Your task to perform on an android device: check data usage Image 0: 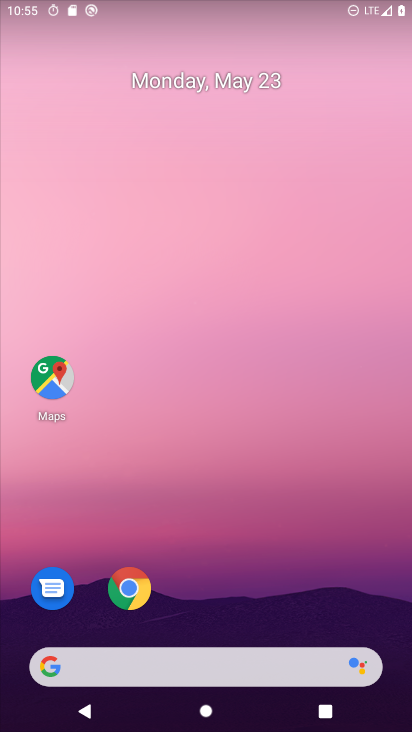
Step 0: drag from (400, 698) to (349, 331)
Your task to perform on an android device: check data usage Image 1: 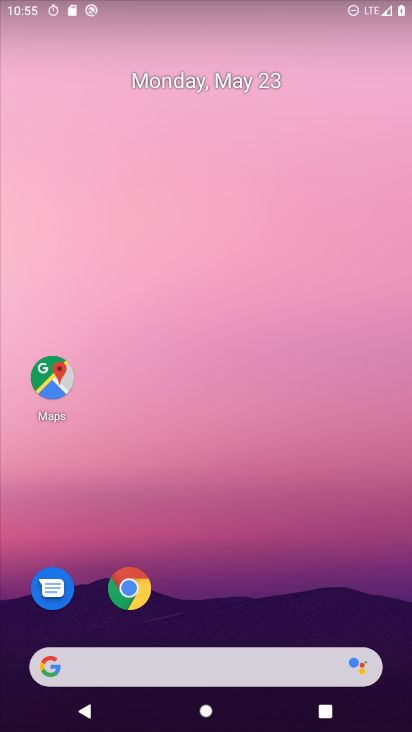
Step 1: drag from (393, 685) to (367, 143)
Your task to perform on an android device: check data usage Image 2: 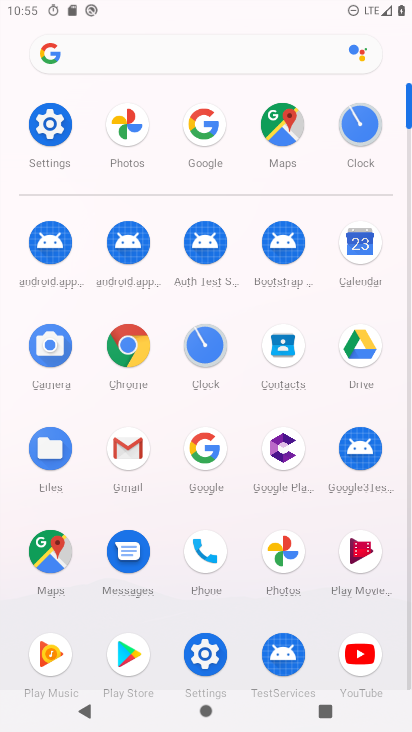
Step 2: click (38, 116)
Your task to perform on an android device: check data usage Image 3: 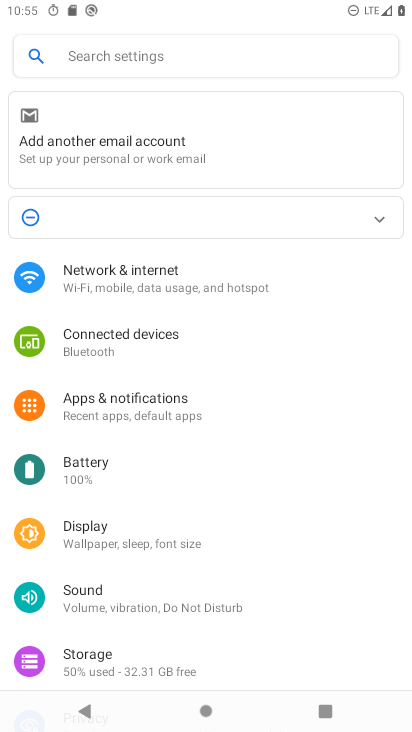
Step 3: click (152, 277)
Your task to perform on an android device: check data usage Image 4: 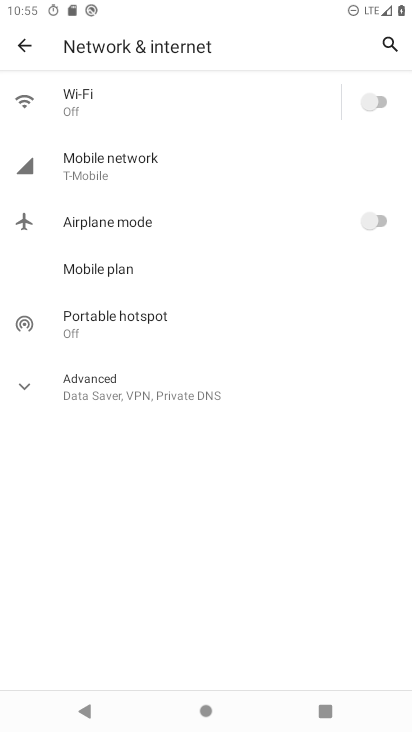
Step 4: click (88, 154)
Your task to perform on an android device: check data usage Image 5: 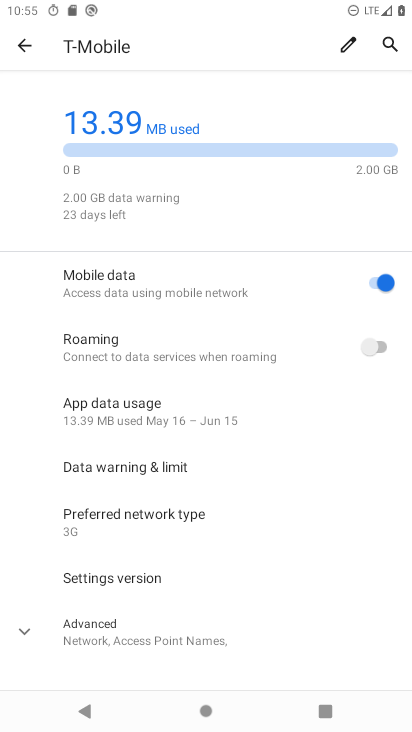
Step 5: task complete